Your task to perform on an android device: Do I have any events today? Image 0: 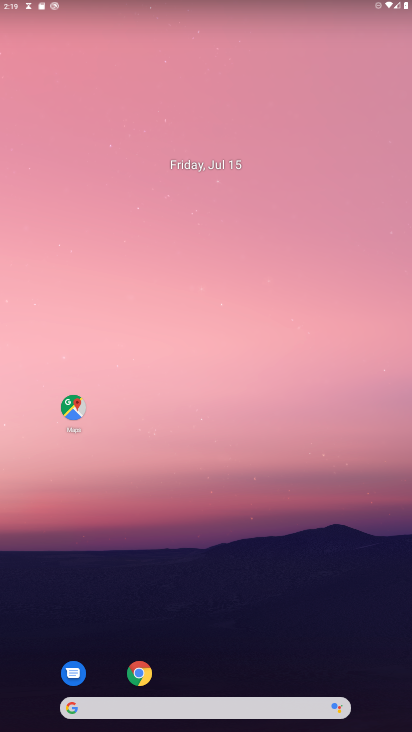
Step 0: drag from (198, 694) to (265, 407)
Your task to perform on an android device: Do I have any events today? Image 1: 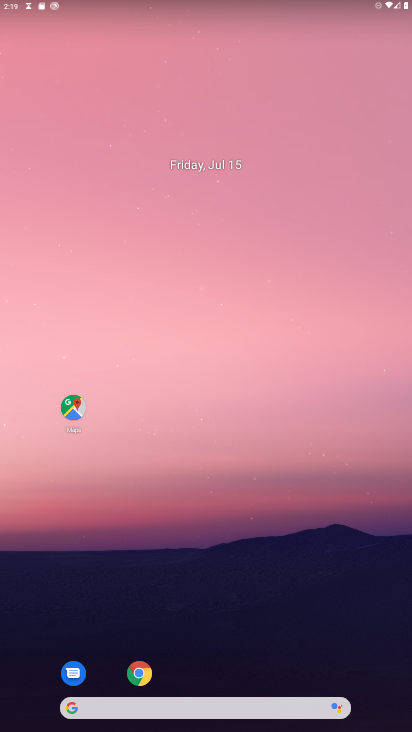
Step 1: drag from (165, 682) to (210, 259)
Your task to perform on an android device: Do I have any events today? Image 2: 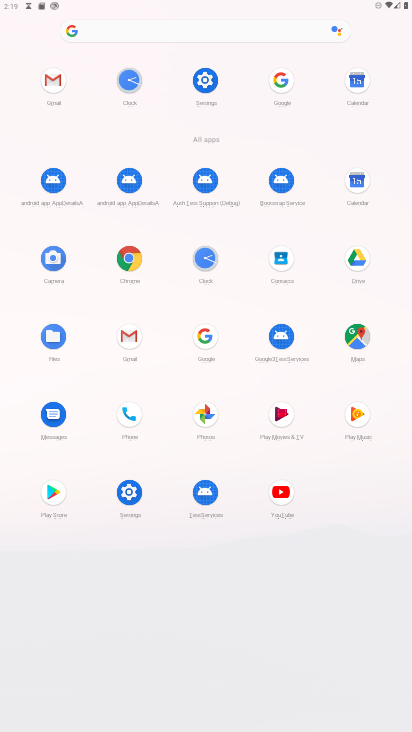
Step 2: click (358, 185)
Your task to perform on an android device: Do I have any events today? Image 3: 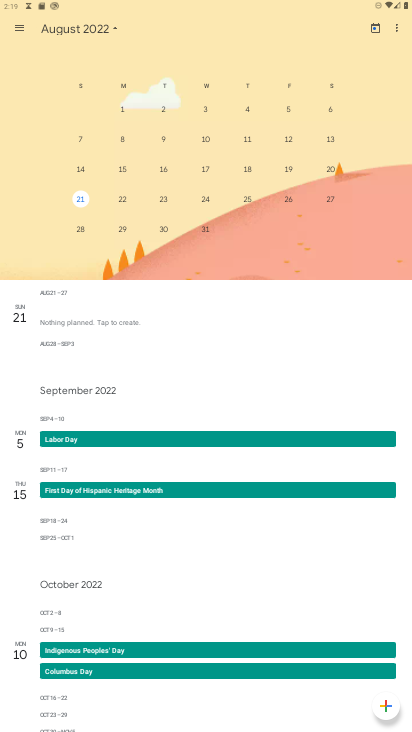
Step 3: drag from (56, 98) to (190, 119)
Your task to perform on an android device: Do I have any events today? Image 4: 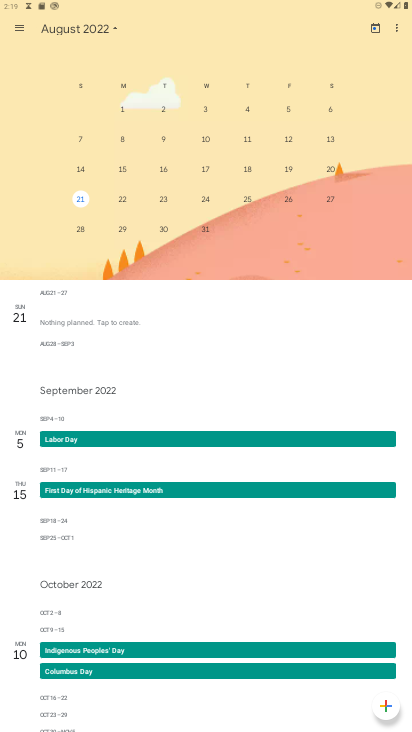
Step 4: drag from (70, 158) to (411, 221)
Your task to perform on an android device: Do I have any events today? Image 5: 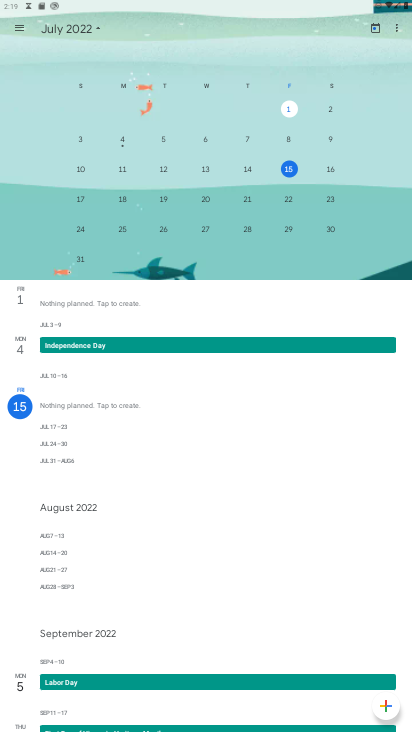
Step 5: click (290, 168)
Your task to perform on an android device: Do I have any events today? Image 6: 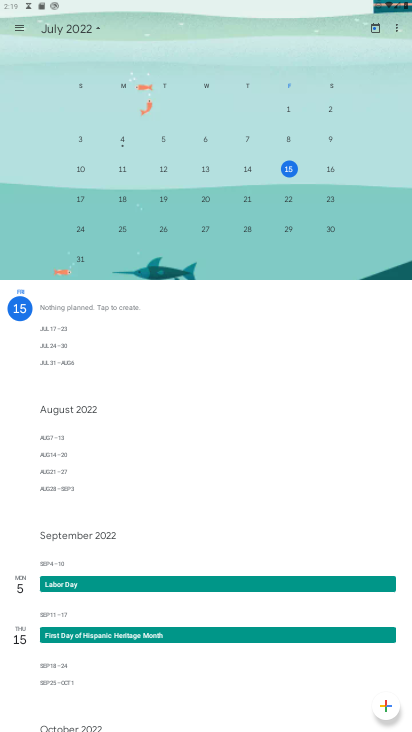
Step 6: task complete